Your task to perform on an android device: Do I have any events tomorrow? Image 0: 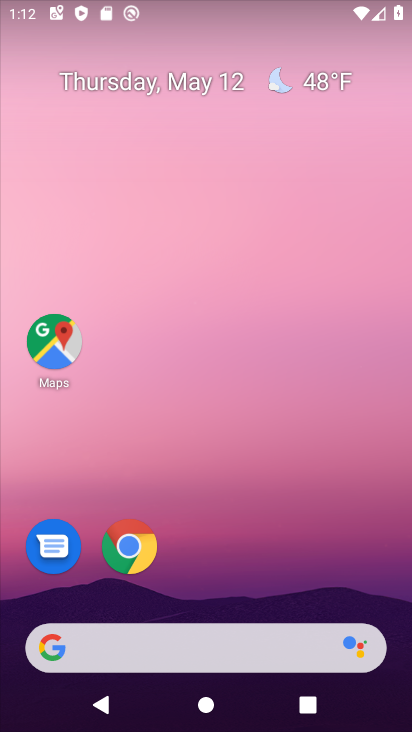
Step 0: drag from (156, 624) to (311, 170)
Your task to perform on an android device: Do I have any events tomorrow? Image 1: 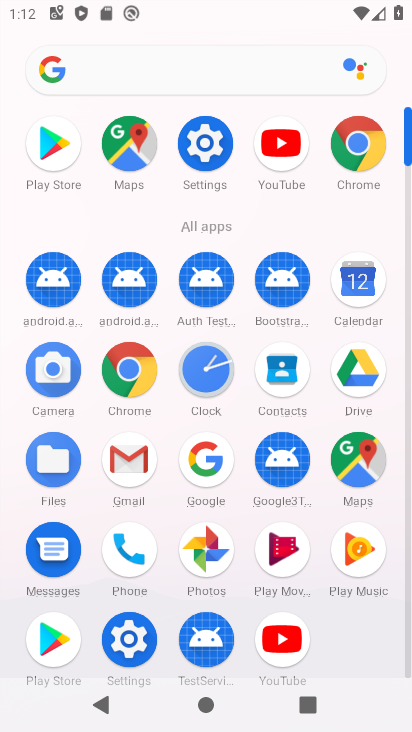
Step 1: click (358, 285)
Your task to perform on an android device: Do I have any events tomorrow? Image 2: 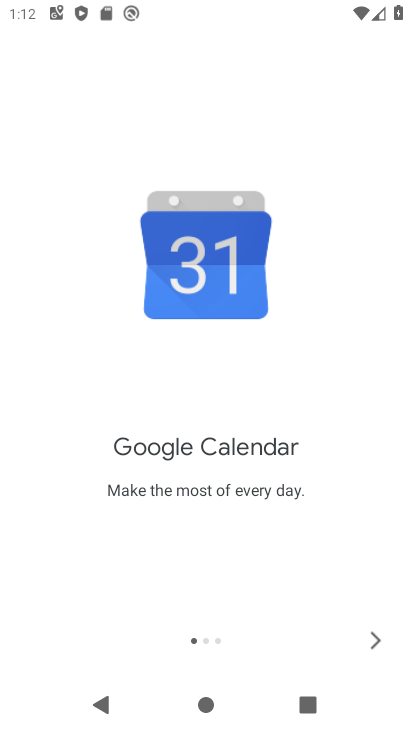
Step 2: click (378, 641)
Your task to perform on an android device: Do I have any events tomorrow? Image 3: 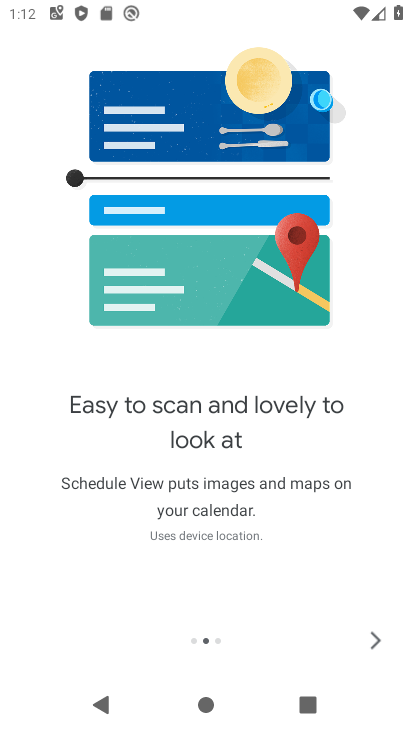
Step 3: click (378, 641)
Your task to perform on an android device: Do I have any events tomorrow? Image 4: 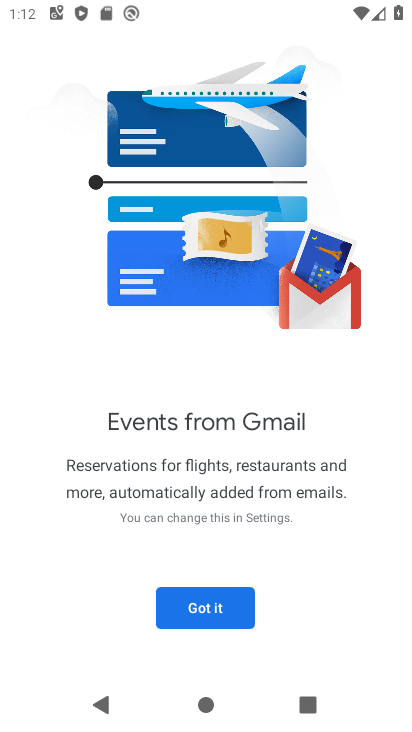
Step 4: click (227, 618)
Your task to perform on an android device: Do I have any events tomorrow? Image 5: 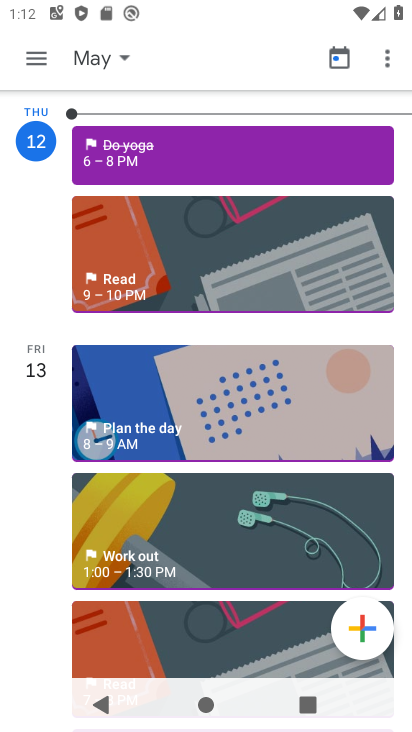
Step 5: click (83, 60)
Your task to perform on an android device: Do I have any events tomorrow? Image 6: 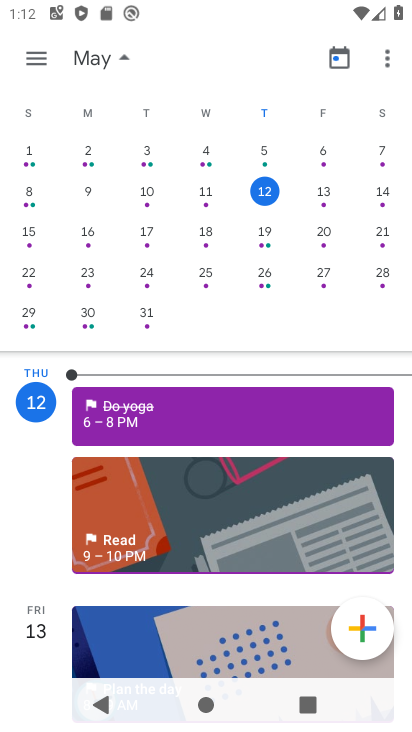
Step 6: click (329, 194)
Your task to perform on an android device: Do I have any events tomorrow? Image 7: 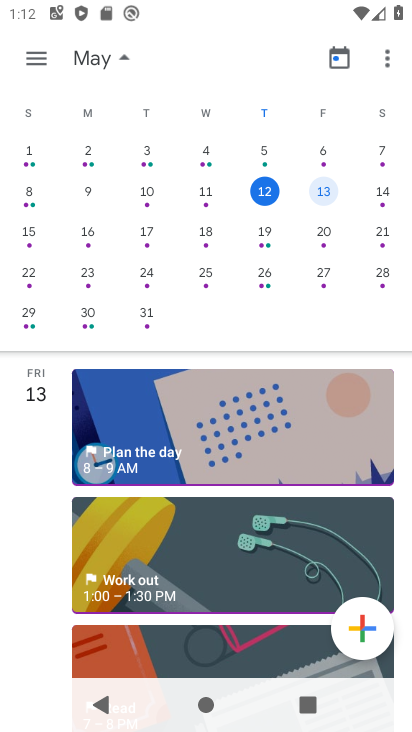
Step 7: click (44, 62)
Your task to perform on an android device: Do I have any events tomorrow? Image 8: 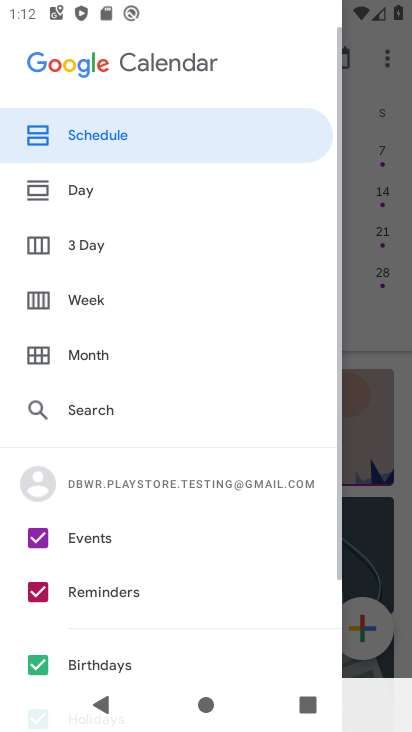
Step 8: click (90, 132)
Your task to perform on an android device: Do I have any events tomorrow? Image 9: 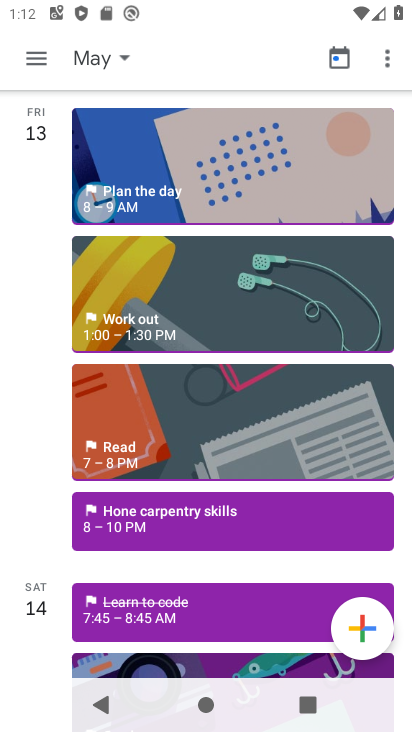
Step 9: click (143, 527)
Your task to perform on an android device: Do I have any events tomorrow? Image 10: 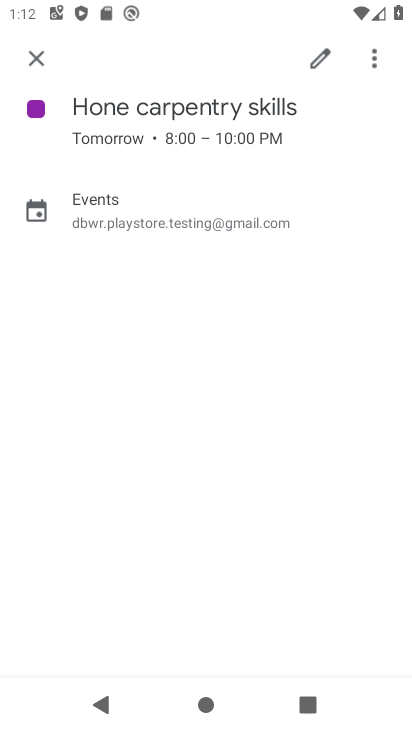
Step 10: task complete